Your task to perform on an android device: set the timer Image 0: 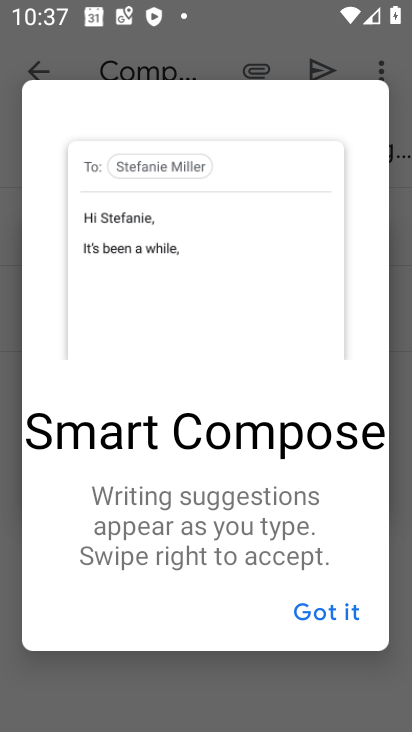
Step 0: press back button
Your task to perform on an android device: set the timer Image 1: 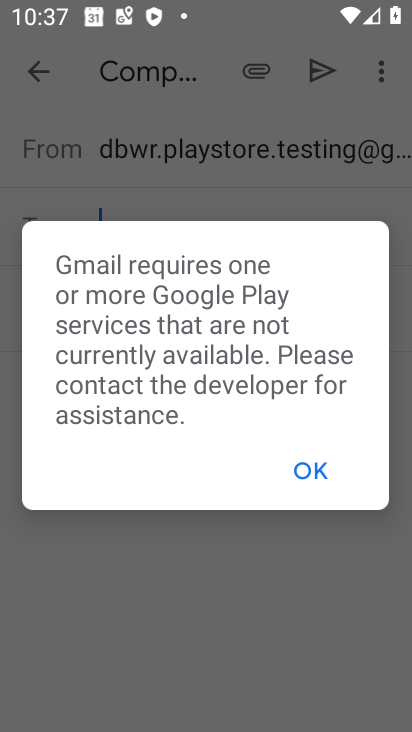
Step 1: click (336, 470)
Your task to perform on an android device: set the timer Image 2: 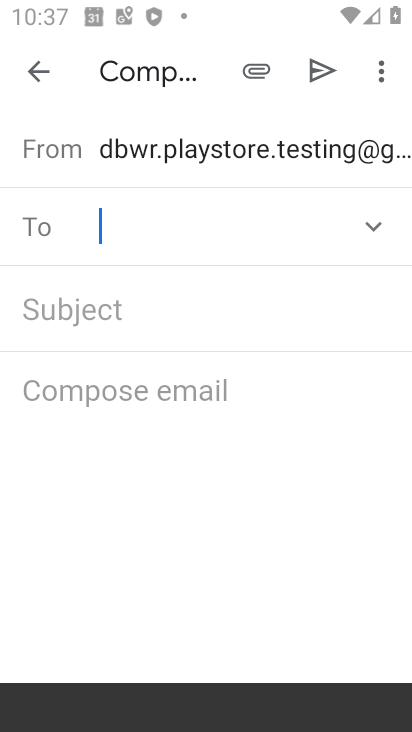
Step 2: click (316, 467)
Your task to perform on an android device: set the timer Image 3: 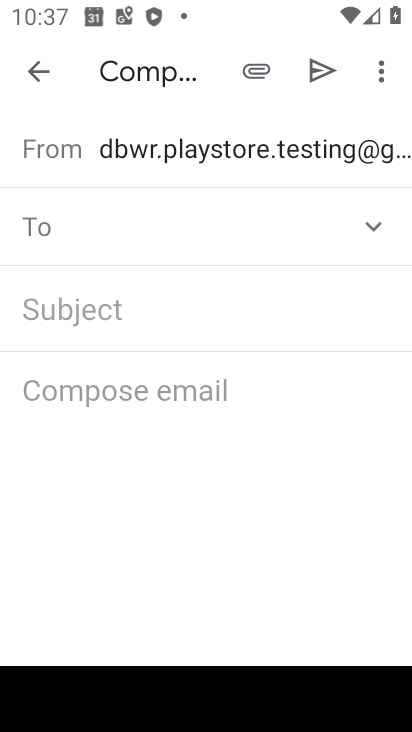
Step 3: click (43, 64)
Your task to perform on an android device: set the timer Image 4: 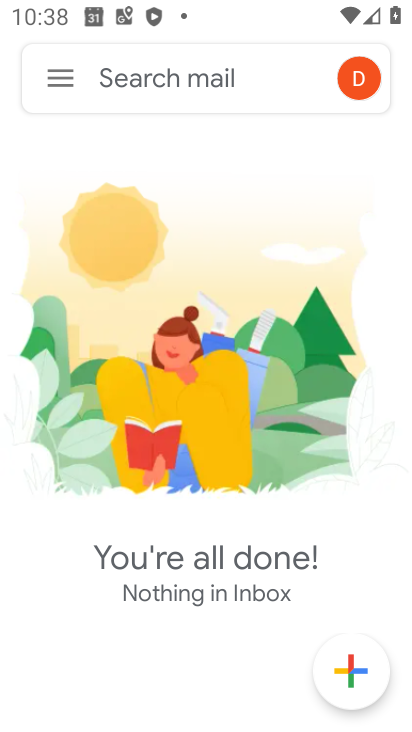
Step 4: press home button
Your task to perform on an android device: set the timer Image 5: 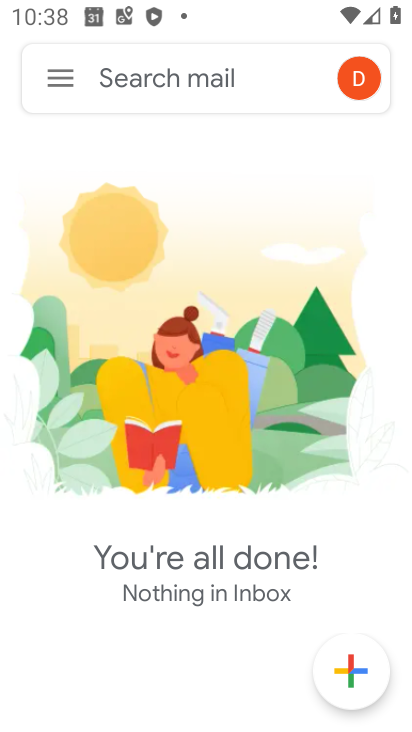
Step 5: press home button
Your task to perform on an android device: set the timer Image 6: 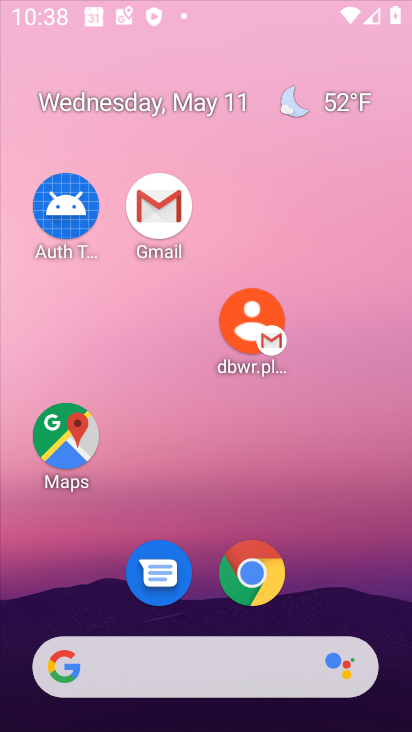
Step 6: press home button
Your task to perform on an android device: set the timer Image 7: 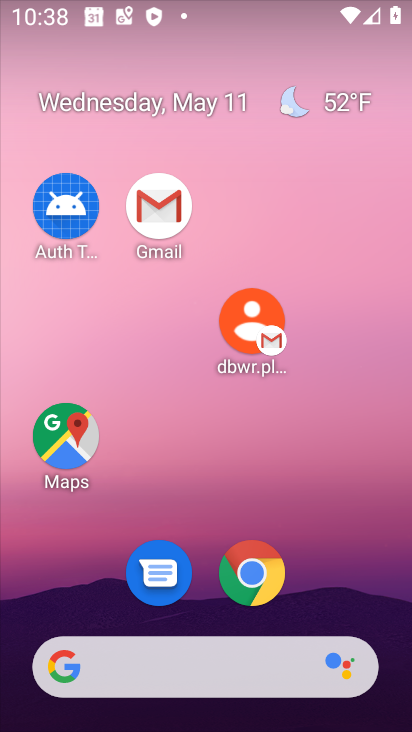
Step 7: drag from (337, 588) to (131, 62)
Your task to perform on an android device: set the timer Image 8: 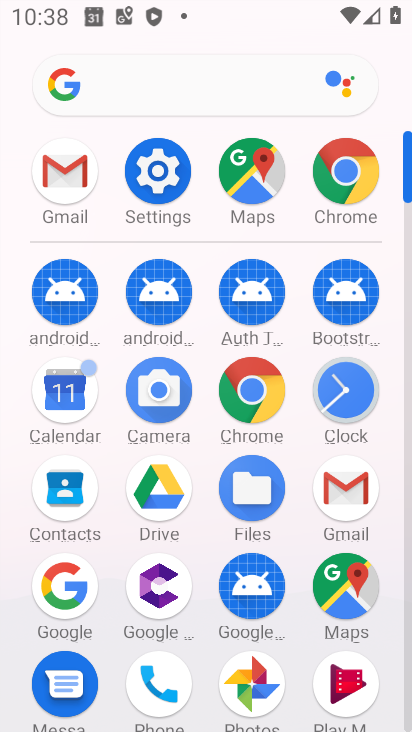
Step 8: click (355, 366)
Your task to perform on an android device: set the timer Image 9: 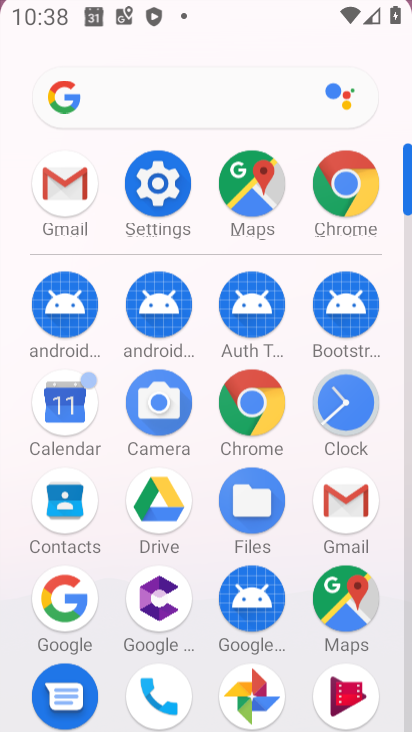
Step 9: click (354, 390)
Your task to perform on an android device: set the timer Image 10: 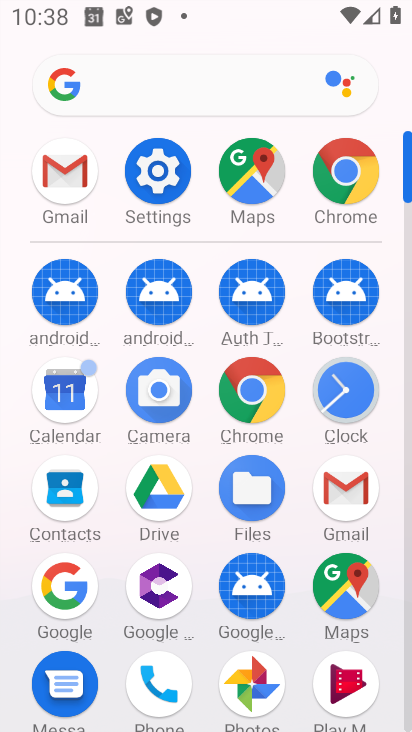
Step 10: click (354, 390)
Your task to perform on an android device: set the timer Image 11: 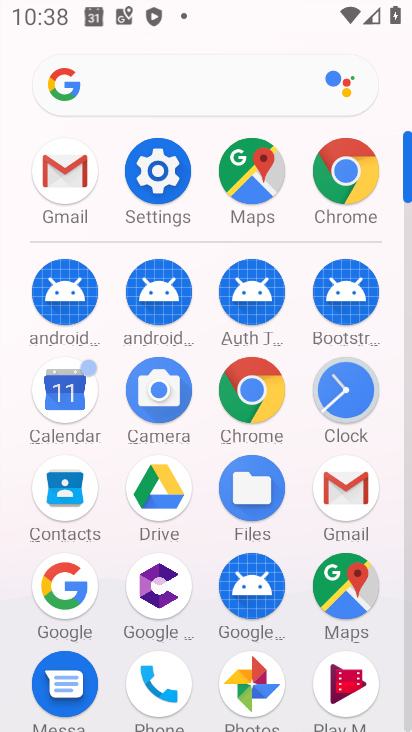
Step 11: click (354, 390)
Your task to perform on an android device: set the timer Image 12: 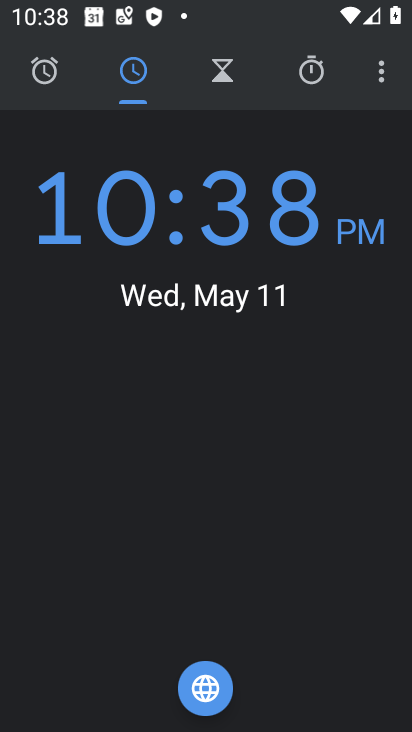
Step 12: click (220, 66)
Your task to perform on an android device: set the timer Image 13: 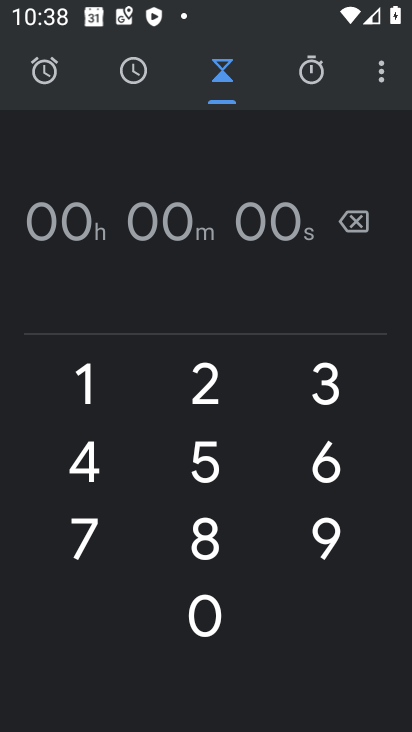
Step 13: click (213, 529)
Your task to perform on an android device: set the timer Image 14: 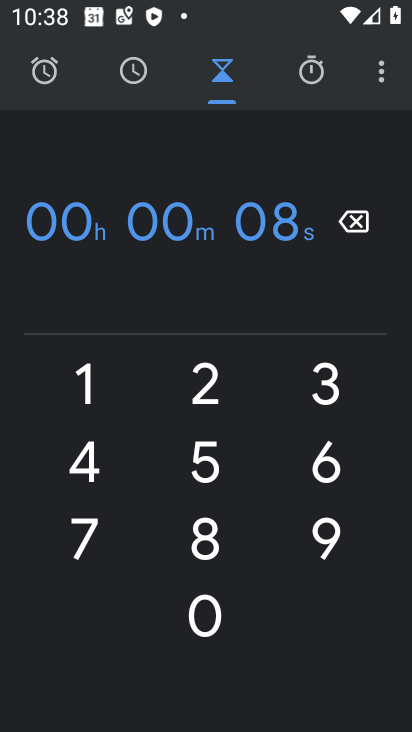
Step 14: click (213, 532)
Your task to perform on an android device: set the timer Image 15: 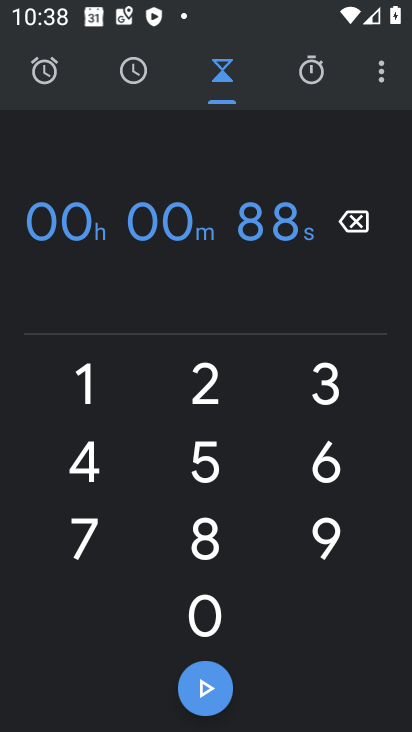
Step 15: click (212, 532)
Your task to perform on an android device: set the timer Image 16: 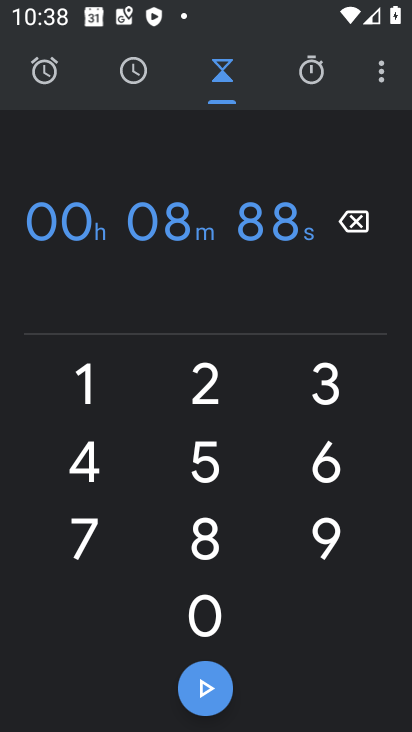
Step 16: click (205, 692)
Your task to perform on an android device: set the timer Image 17: 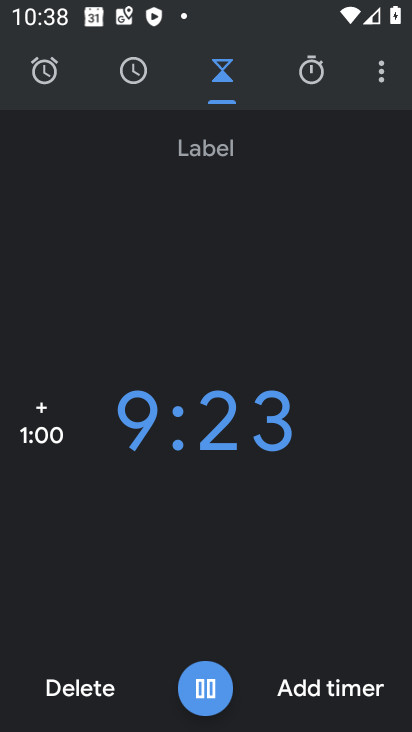
Step 17: task complete